Your task to perform on an android device: turn on notifications settings in the gmail app Image 0: 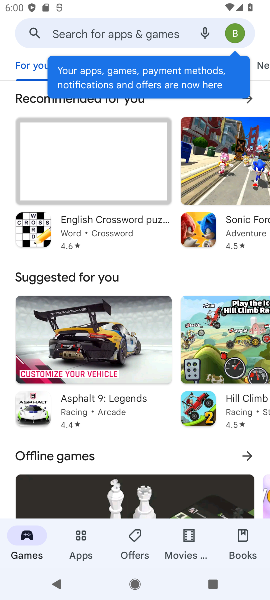
Step 0: press home button
Your task to perform on an android device: turn on notifications settings in the gmail app Image 1: 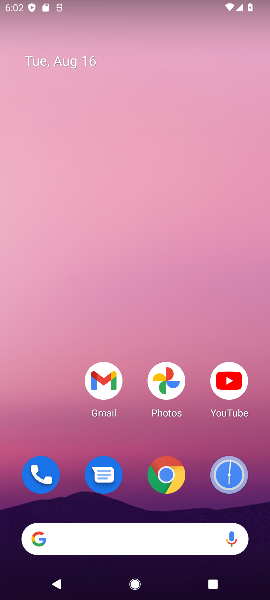
Step 1: drag from (214, 500) to (156, 61)
Your task to perform on an android device: turn on notifications settings in the gmail app Image 2: 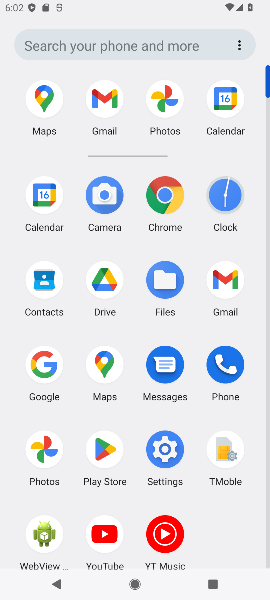
Step 2: click (233, 280)
Your task to perform on an android device: turn on notifications settings in the gmail app Image 3: 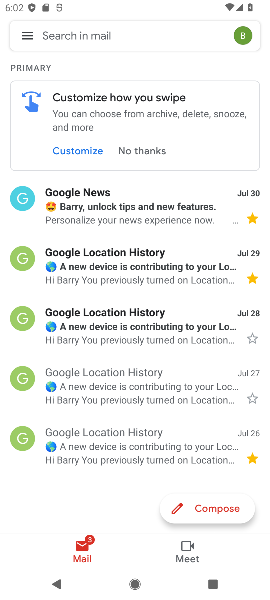
Step 3: click (26, 40)
Your task to perform on an android device: turn on notifications settings in the gmail app Image 4: 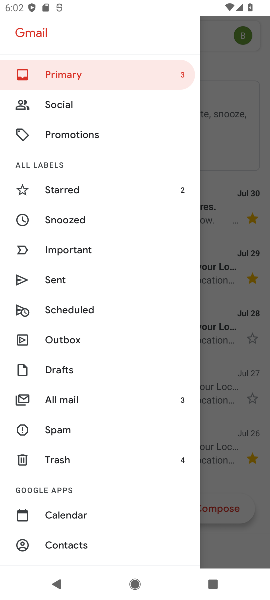
Step 4: drag from (62, 536) to (63, 162)
Your task to perform on an android device: turn on notifications settings in the gmail app Image 5: 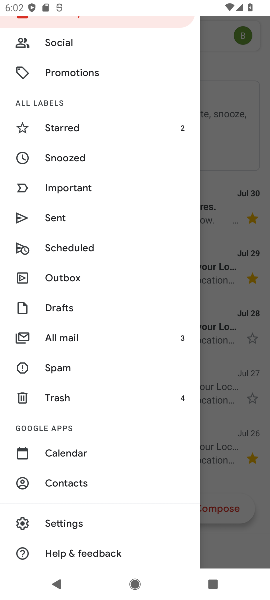
Step 5: click (60, 526)
Your task to perform on an android device: turn on notifications settings in the gmail app Image 6: 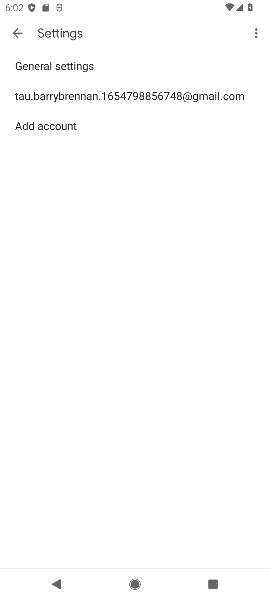
Step 6: click (80, 82)
Your task to perform on an android device: turn on notifications settings in the gmail app Image 7: 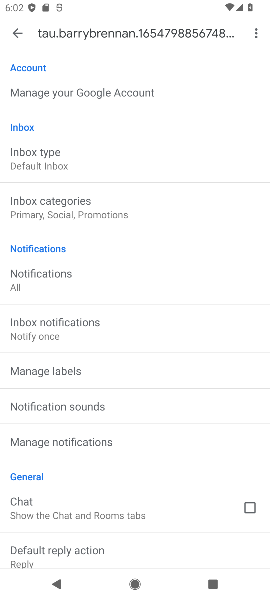
Step 7: task complete